Your task to perform on an android device: Search for a new desk on Ikea Image 0: 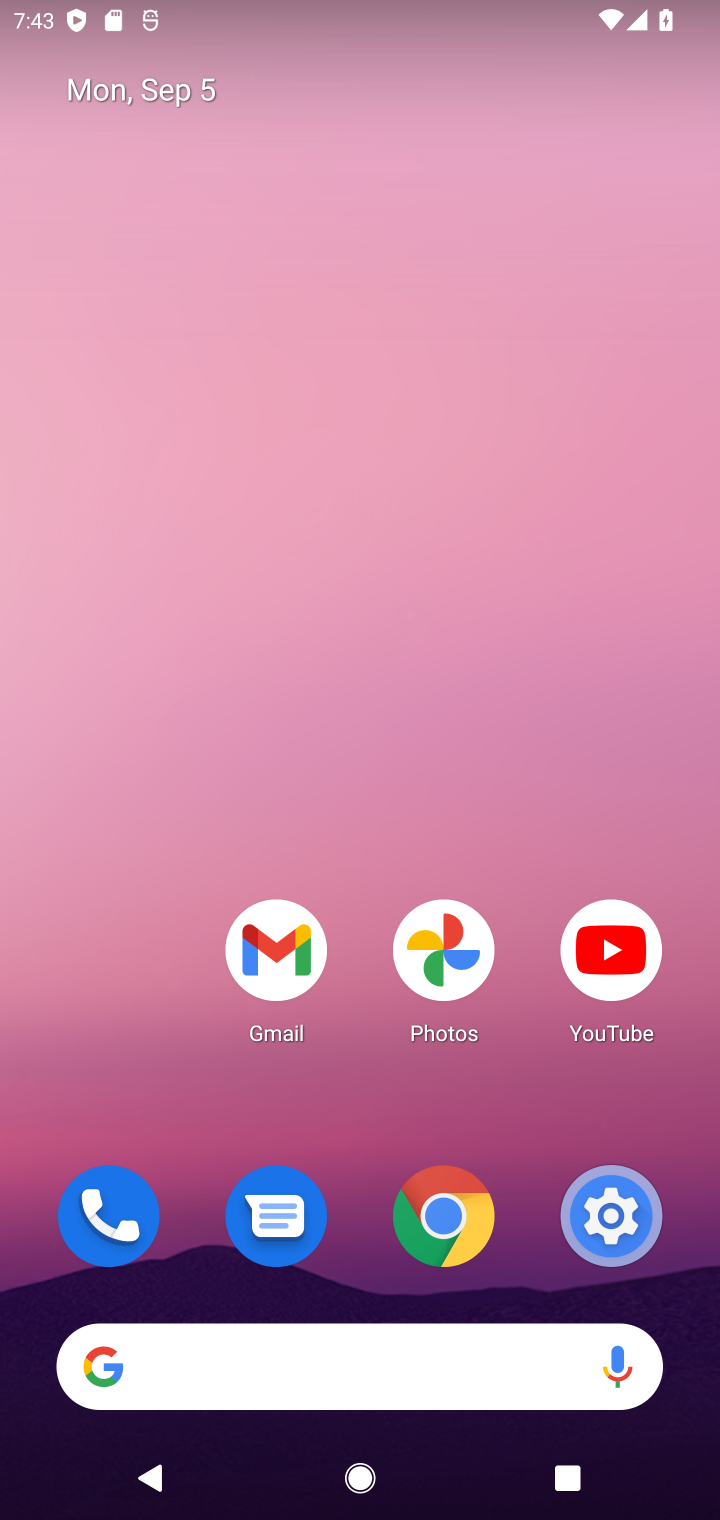
Step 0: click (341, 1361)
Your task to perform on an android device: Search for a new desk on Ikea Image 1: 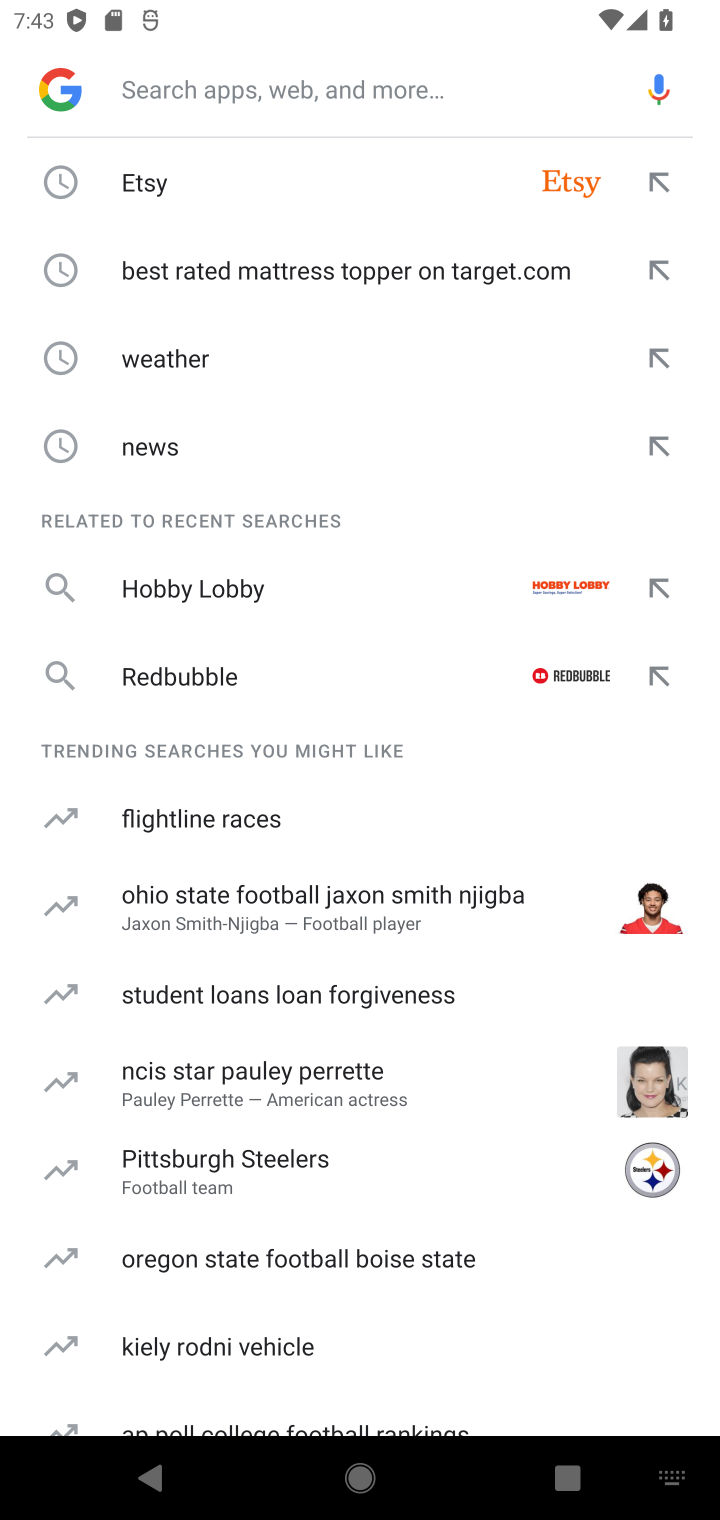
Step 1: type "ikea"
Your task to perform on an android device: Search for a new desk on Ikea Image 2: 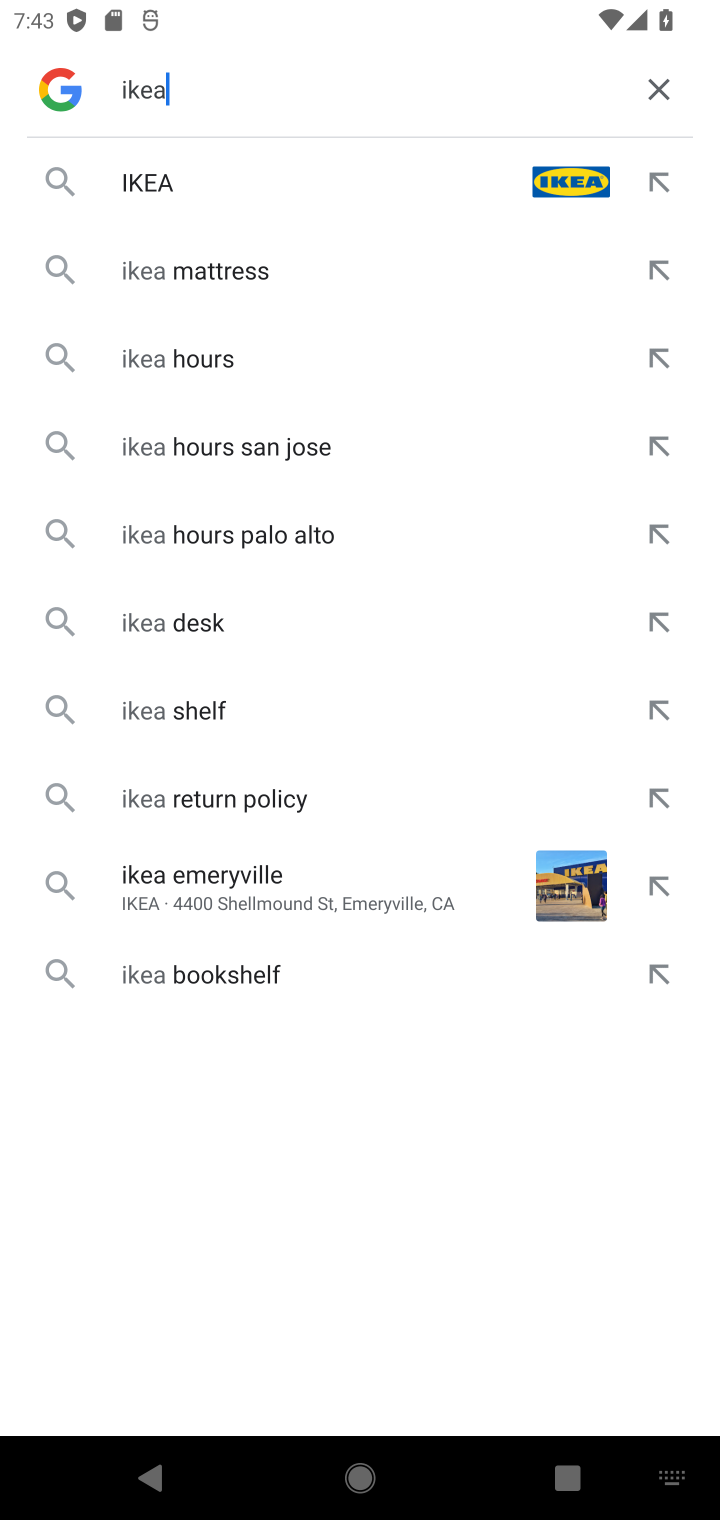
Step 2: click (553, 219)
Your task to perform on an android device: Search for a new desk on Ikea Image 3: 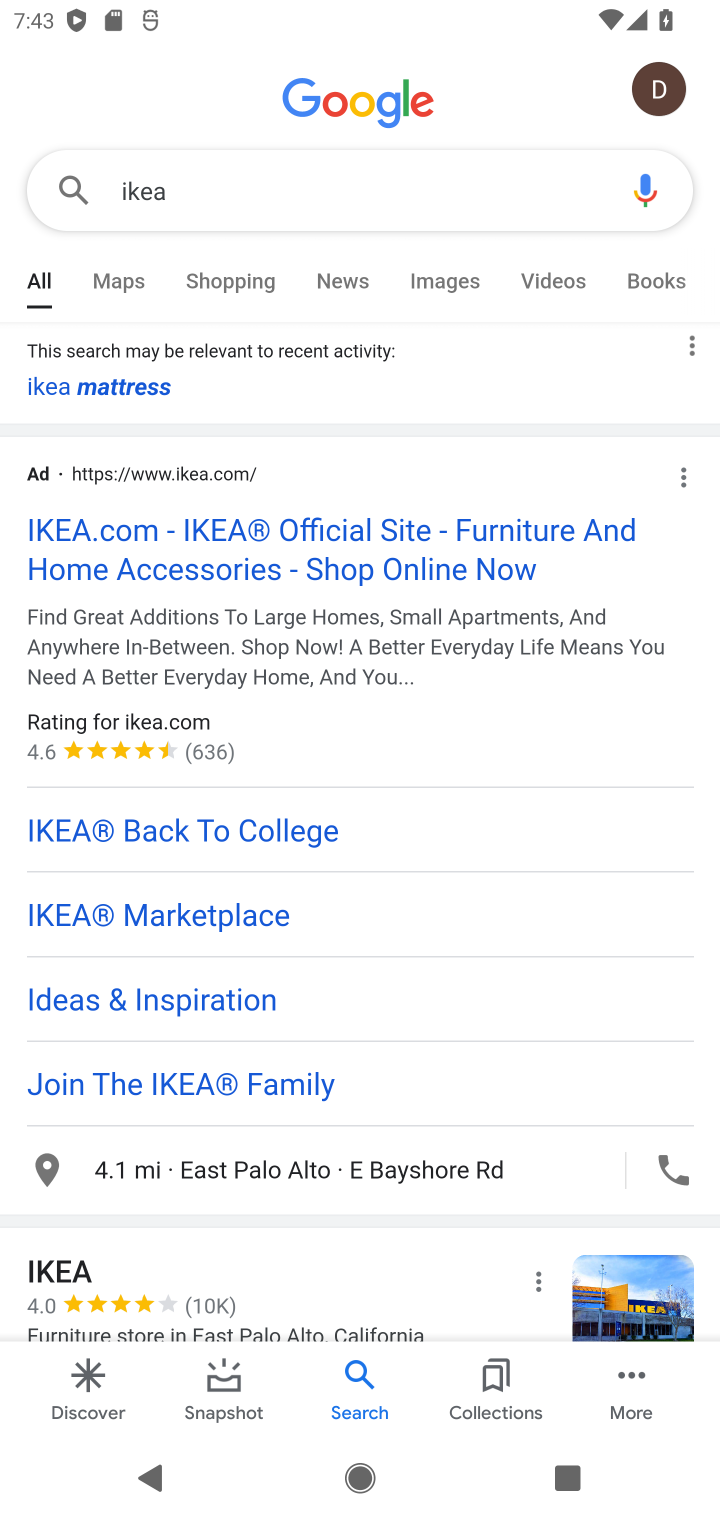
Step 3: click (97, 519)
Your task to perform on an android device: Search for a new desk on Ikea Image 4: 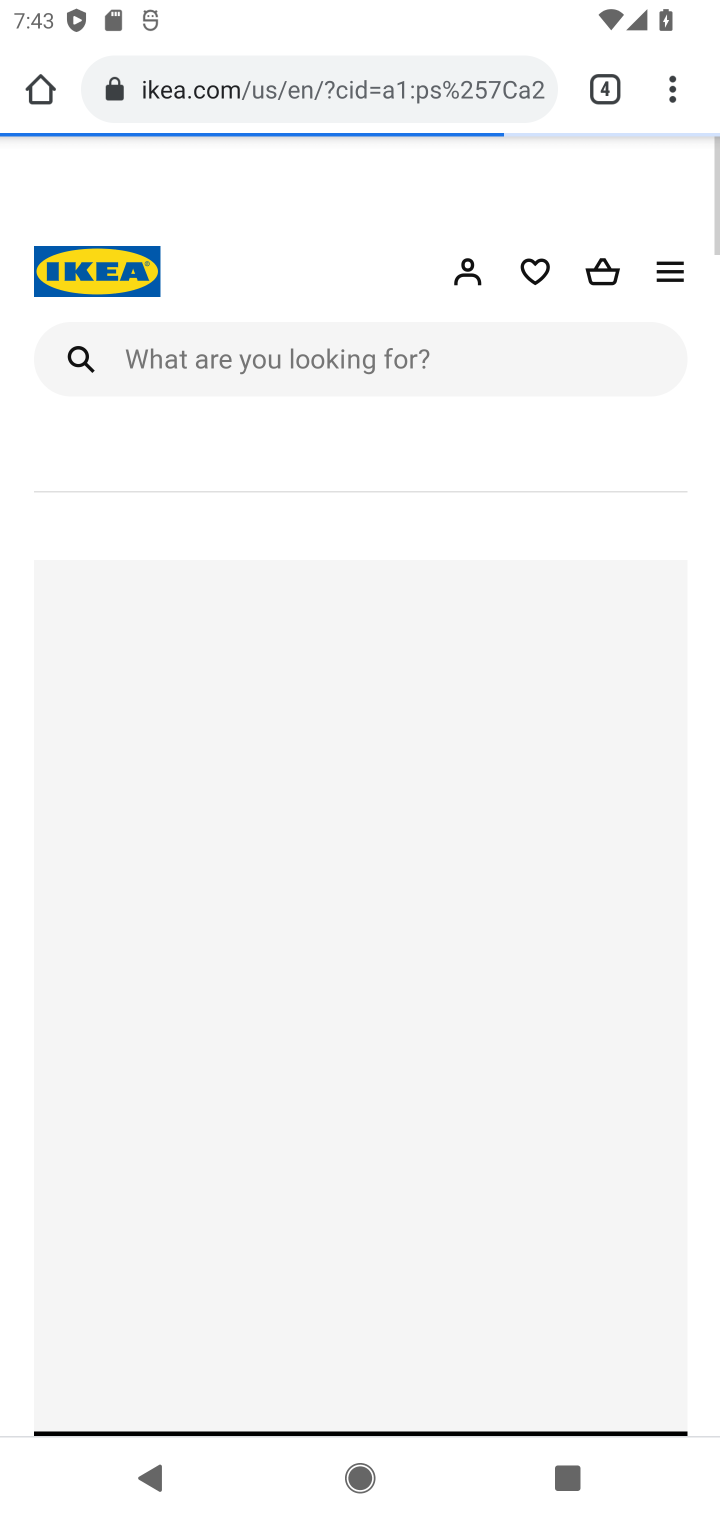
Step 4: click (153, 575)
Your task to perform on an android device: Search for a new desk on Ikea Image 5: 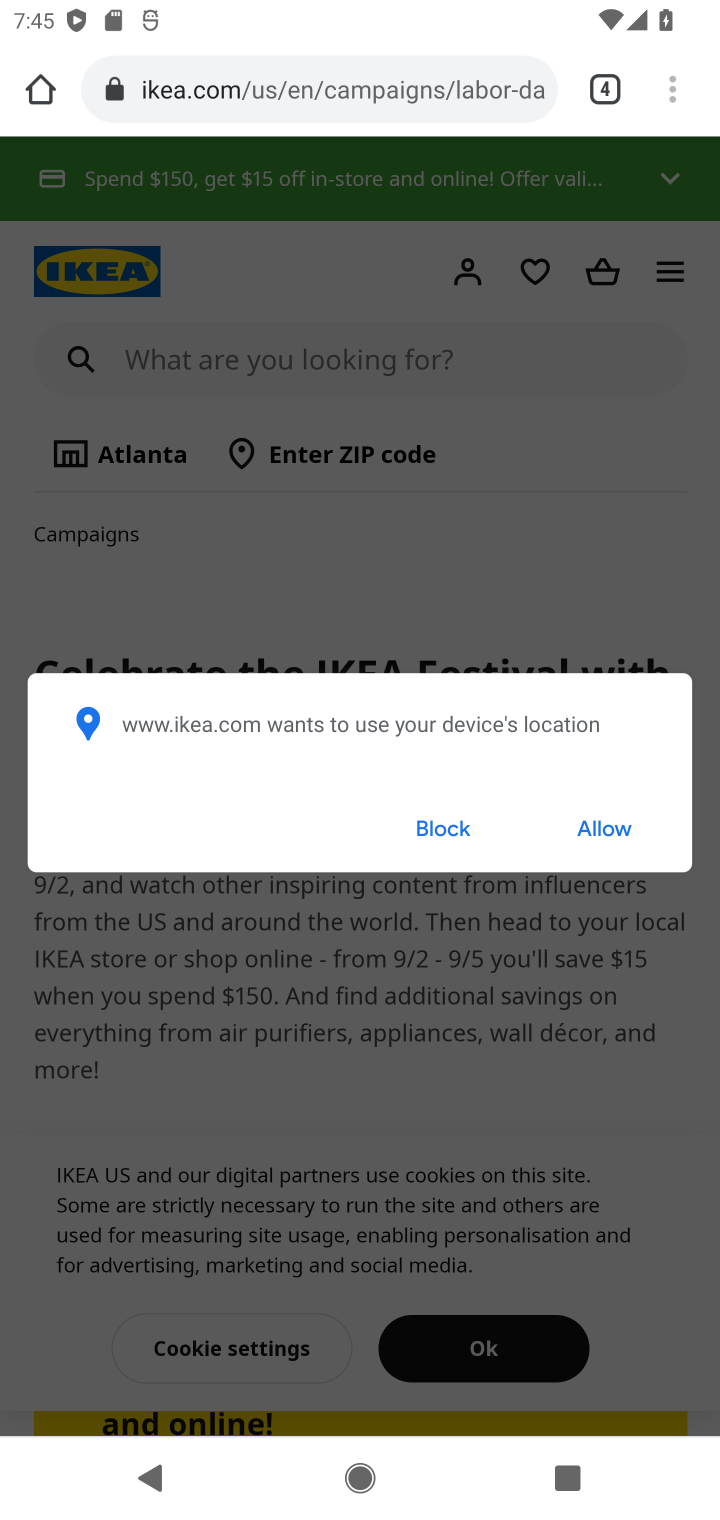
Step 5: click (578, 820)
Your task to perform on an android device: Search for a new desk on Ikea Image 6: 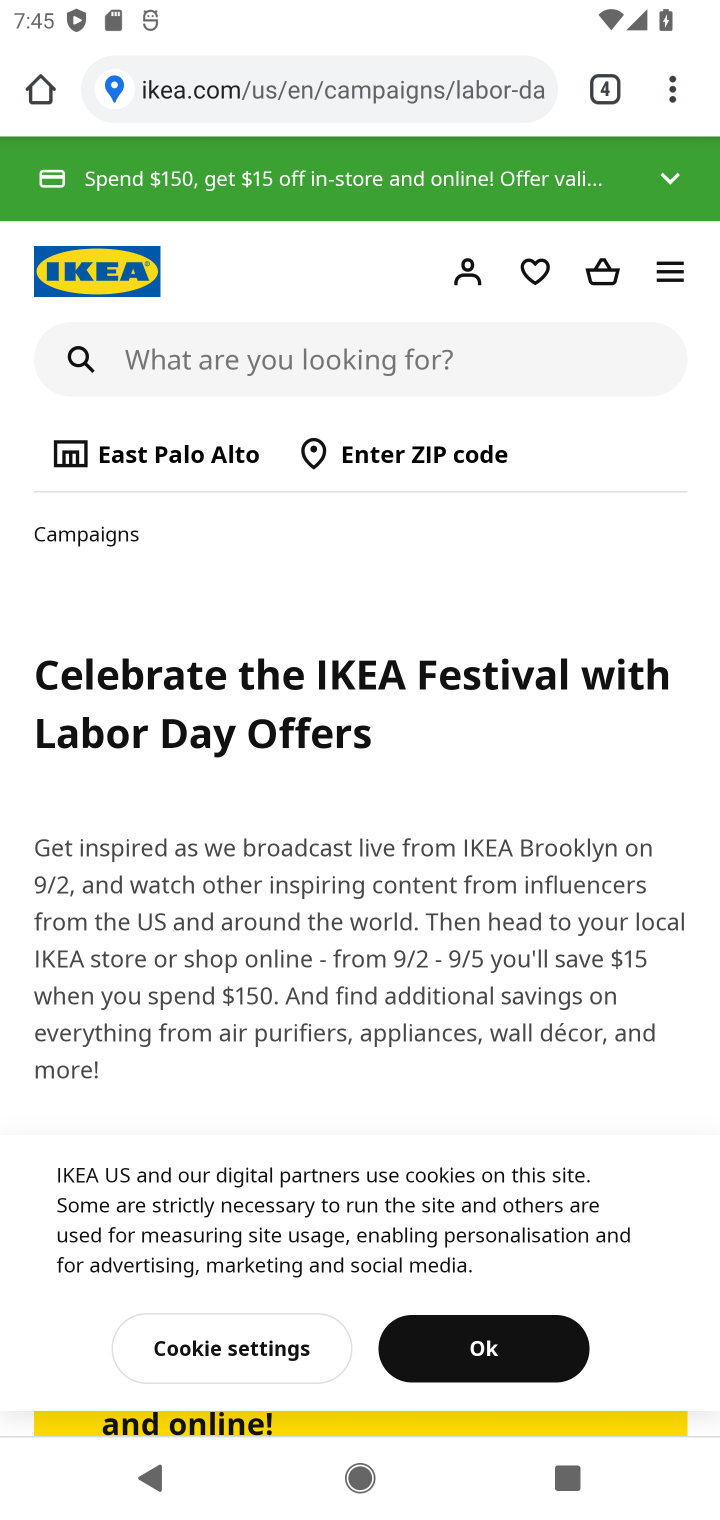
Step 6: click (253, 366)
Your task to perform on an android device: Search for a new desk on Ikea Image 7: 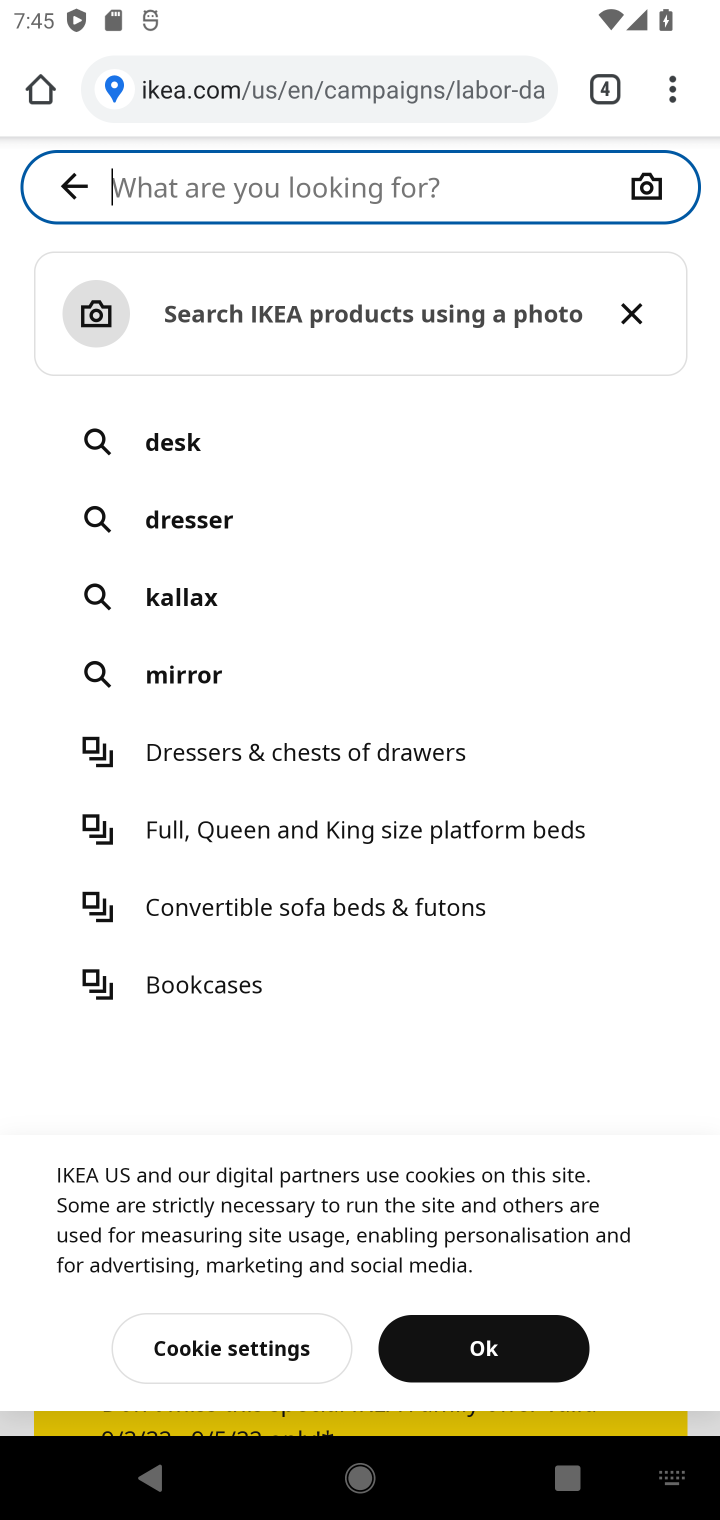
Step 7: click (204, 452)
Your task to perform on an android device: Search for a new desk on Ikea Image 8: 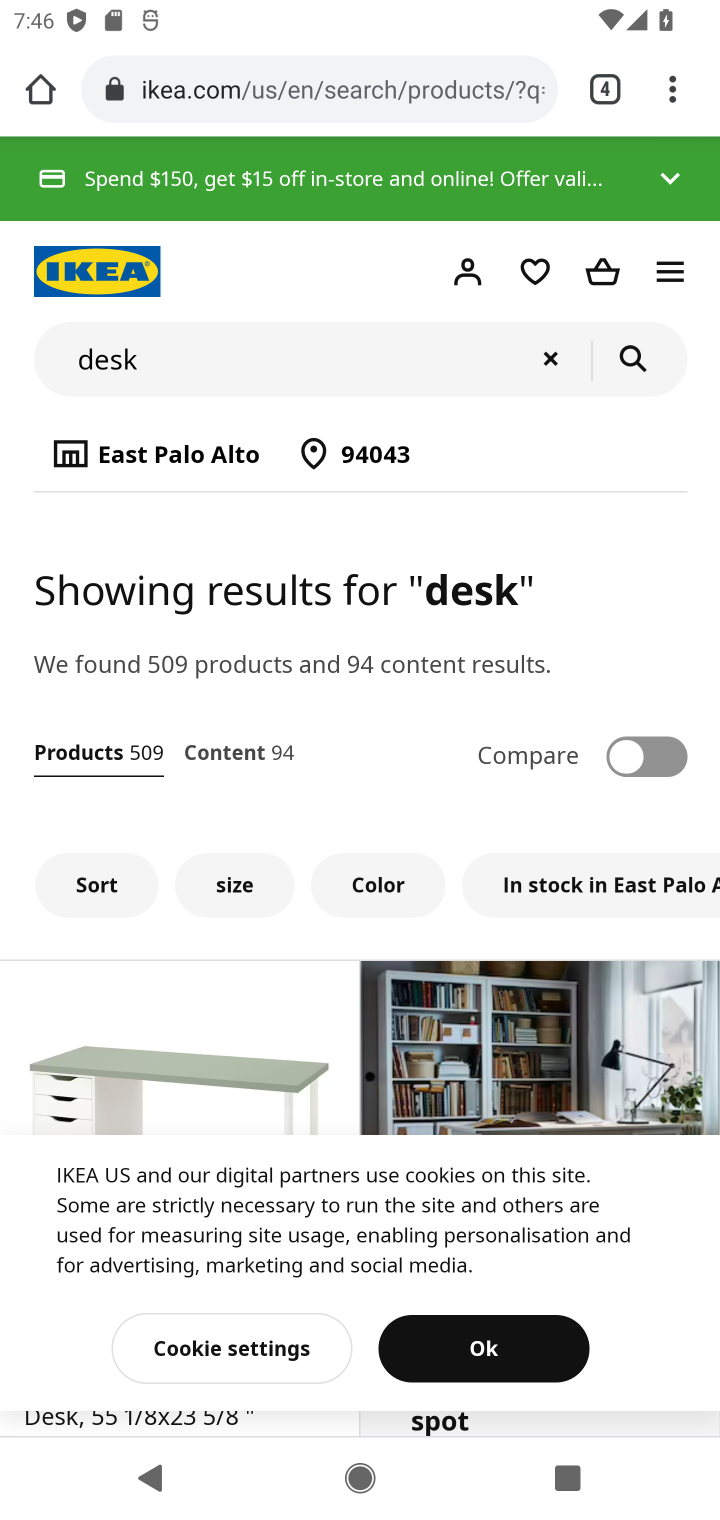
Step 8: task complete